Your task to perform on an android device: change your default location settings in chrome Image 0: 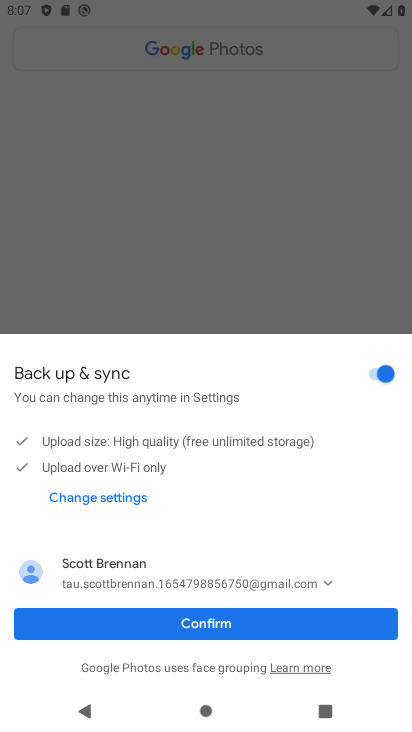
Step 0: press home button
Your task to perform on an android device: change your default location settings in chrome Image 1: 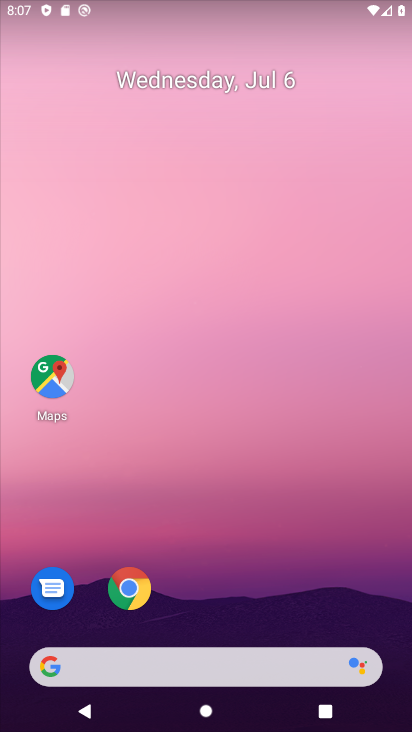
Step 1: drag from (185, 620) to (222, 53)
Your task to perform on an android device: change your default location settings in chrome Image 2: 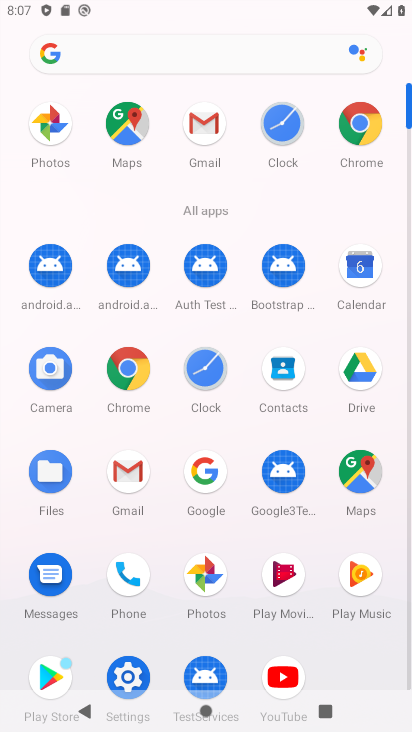
Step 2: click (125, 377)
Your task to perform on an android device: change your default location settings in chrome Image 3: 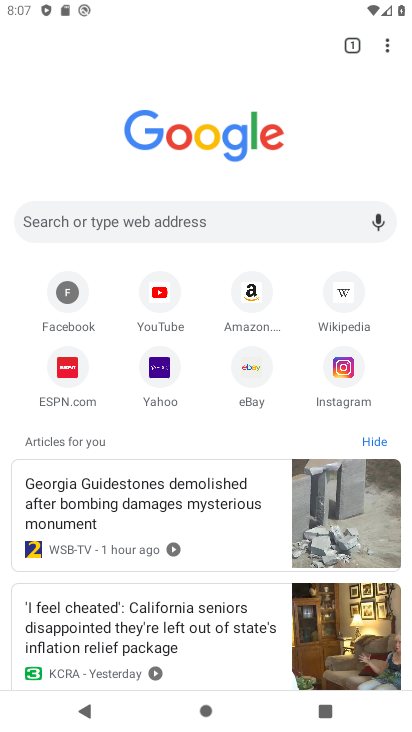
Step 3: click (380, 47)
Your task to perform on an android device: change your default location settings in chrome Image 4: 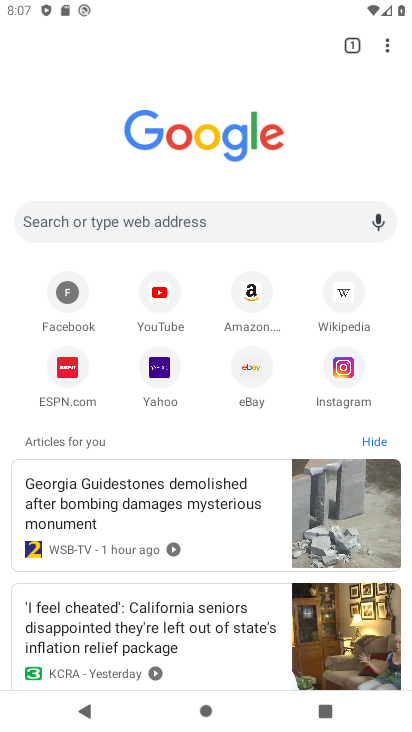
Step 4: click (392, 41)
Your task to perform on an android device: change your default location settings in chrome Image 5: 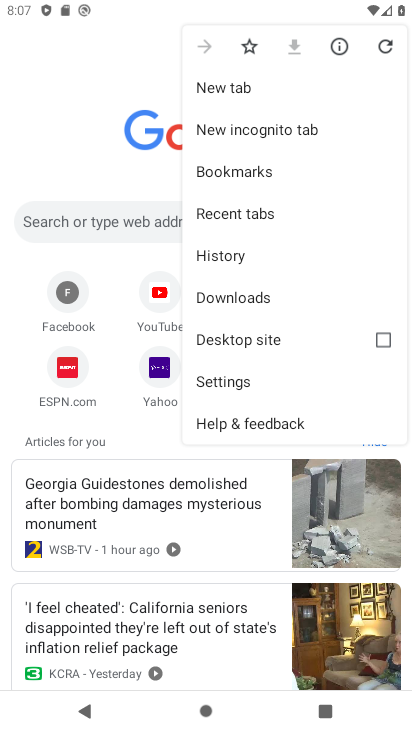
Step 5: click (233, 388)
Your task to perform on an android device: change your default location settings in chrome Image 6: 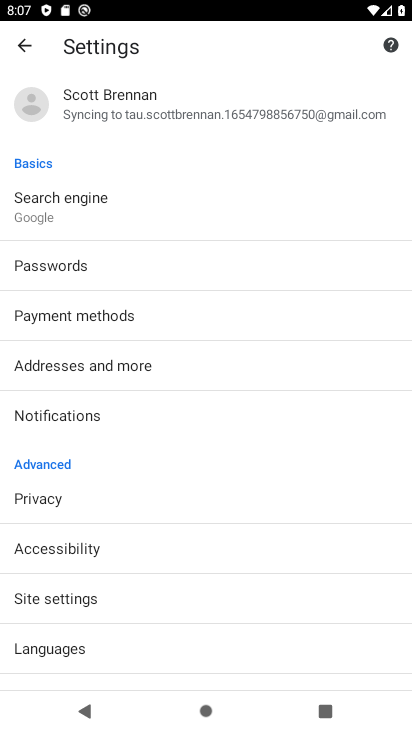
Step 6: drag from (132, 607) to (129, 410)
Your task to perform on an android device: change your default location settings in chrome Image 7: 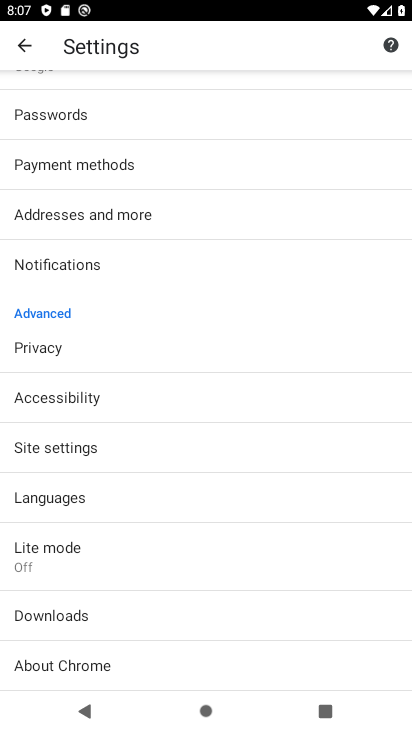
Step 7: drag from (77, 600) to (85, 490)
Your task to perform on an android device: change your default location settings in chrome Image 8: 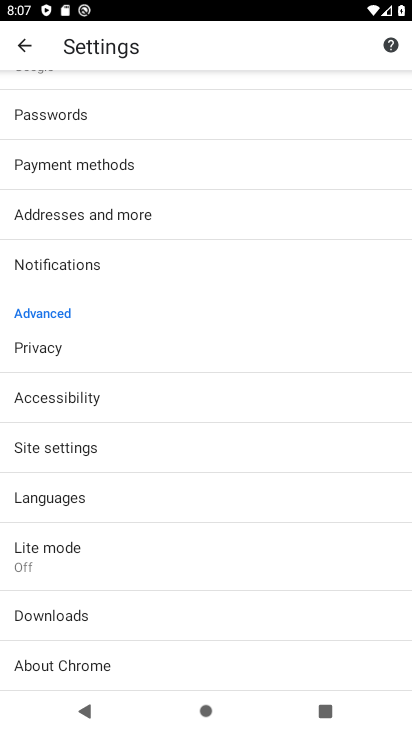
Step 8: click (80, 452)
Your task to perform on an android device: change your default location settings in chrome Image 9: 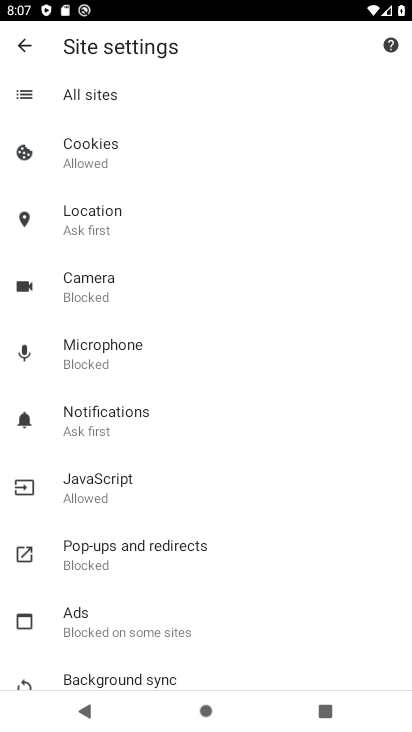
Step 9: drag from (130, 597) to (149, 374)
Your task to perform on an android device: change your default location settings in chrome Image 10: 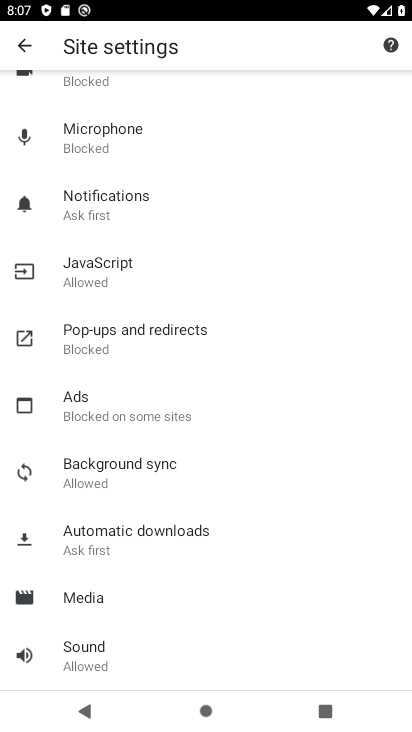
Step 10: drag from (149, 383) to (128, 644)
Your task to perform on an android device: change your default location settings in chrome Image 11: 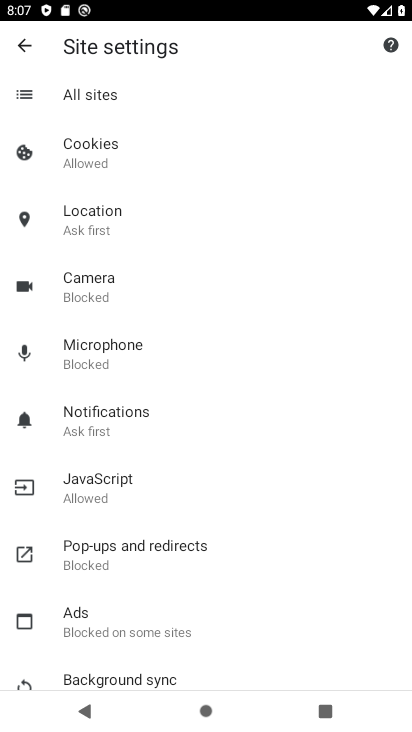
Step 11: click (90, 238)
Your task to perform on an android device: change your default location settings in chrome Image 12: 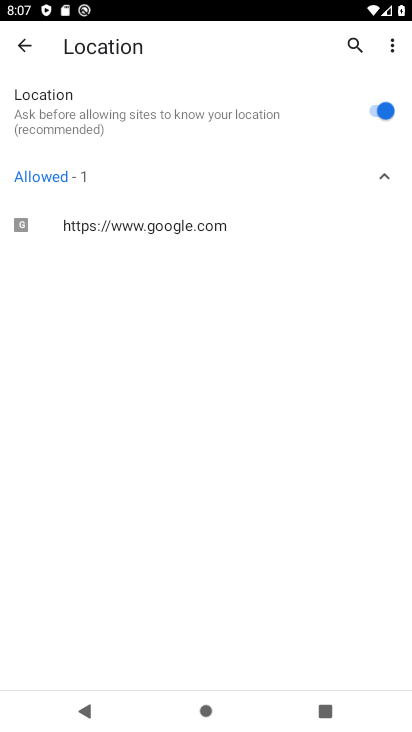
Step 12: click (365, 111)
Your task to perform on an android device: change your default location settings in chrome Image 13: 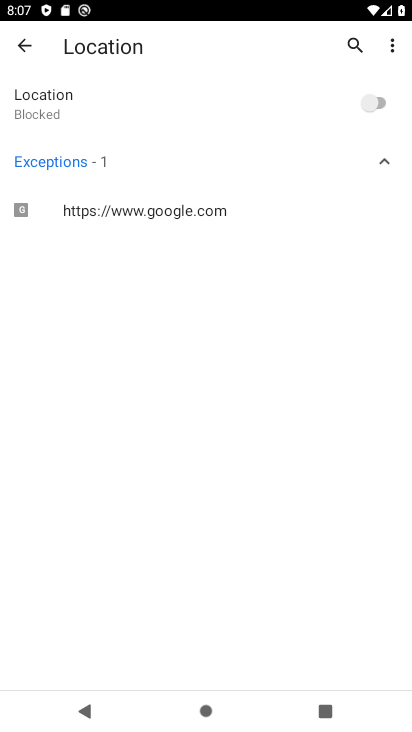
Step 13: task complete